Your task to perform on an android device: Open calendar and show me the third week of next month Image 0: 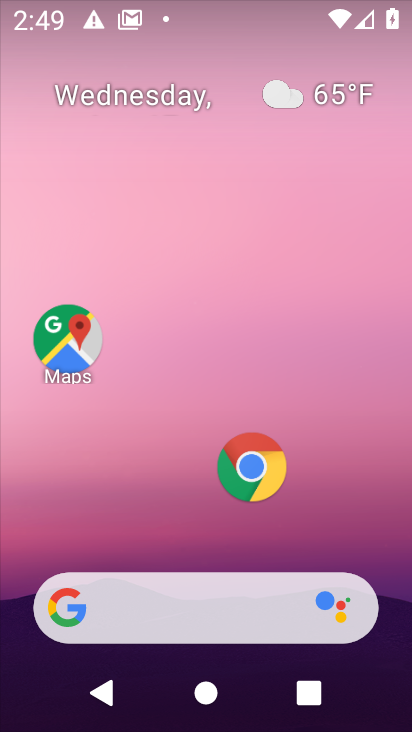
Step 0: drag from (160, 439) to (212, 149)
Your task to perform on an android device: Open calendar and show me the third week of next month Image 1: 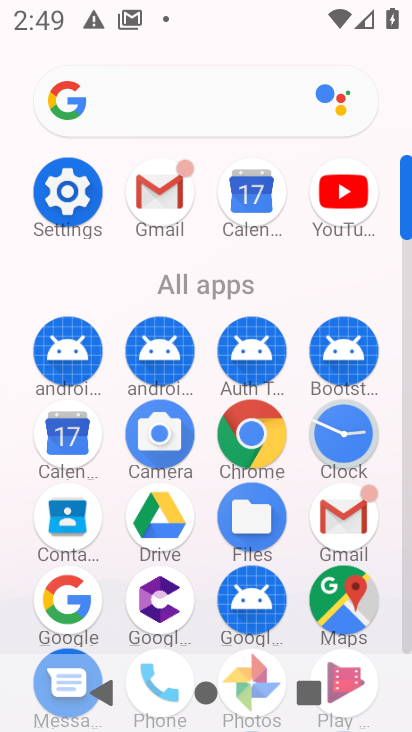
Step 1: click (63, 219)
Your task to perform on an android device: Open calendar and show me the third week of next month Image 2: 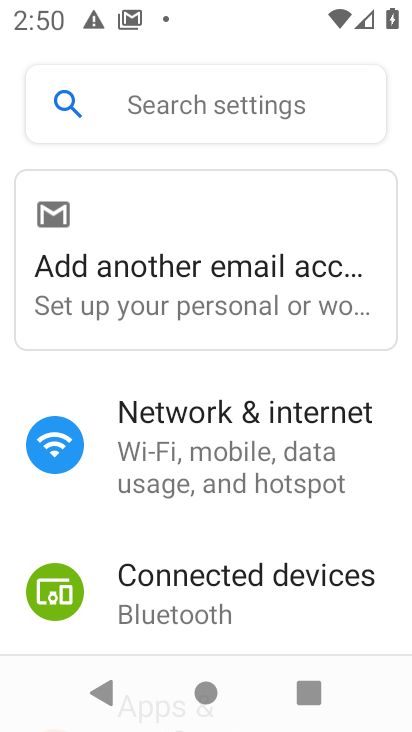
Step 2: task complete